Your task to perform on an android device: Open Chrome and go to settings Image 0: 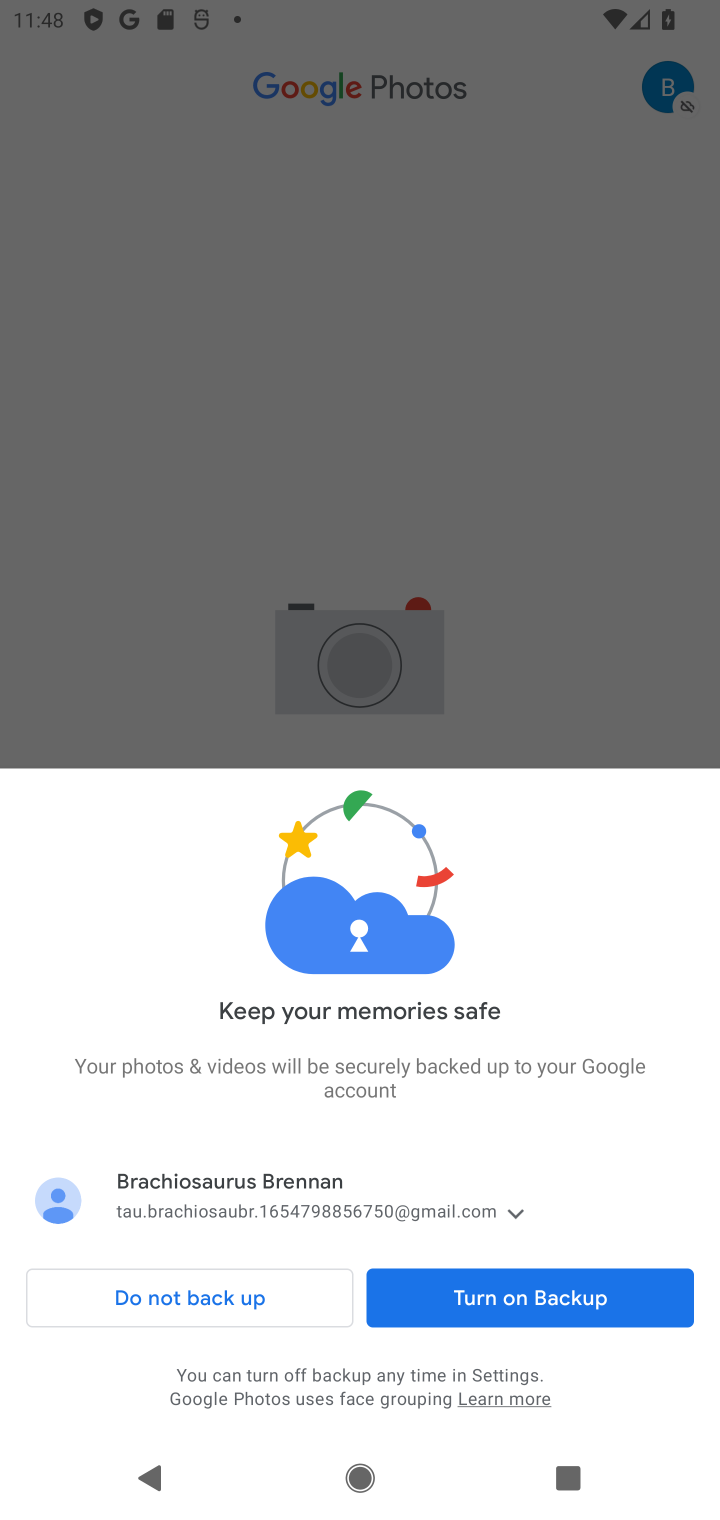
Step 0: task complete